Your task to perform on an android device: turn off javascript in the chrome app Image 0: 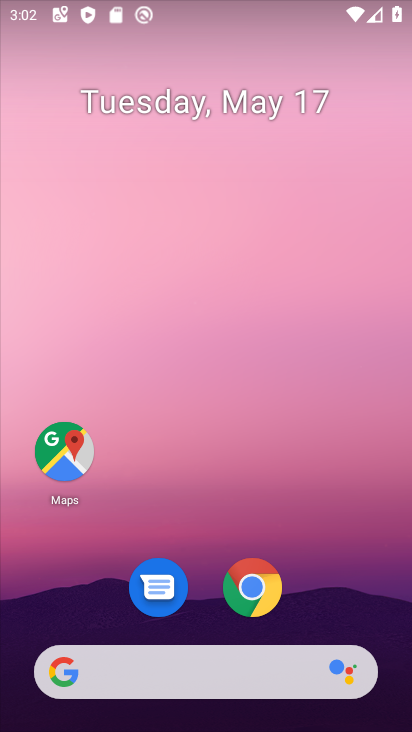
Step 0: drag from (287, 630) to (317, 8)
Your task to perform on an android device: turn off javascript in the chrome app Image 1: 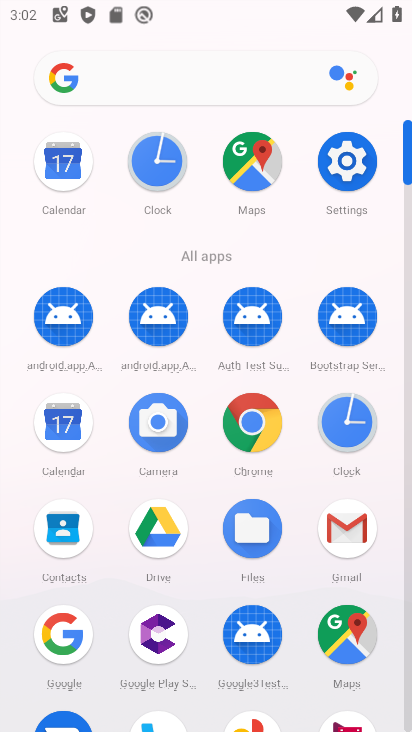
Step 1: click (250, 420)
Your task to perform on an android device: turn off javascript in the chrome app Image 2: 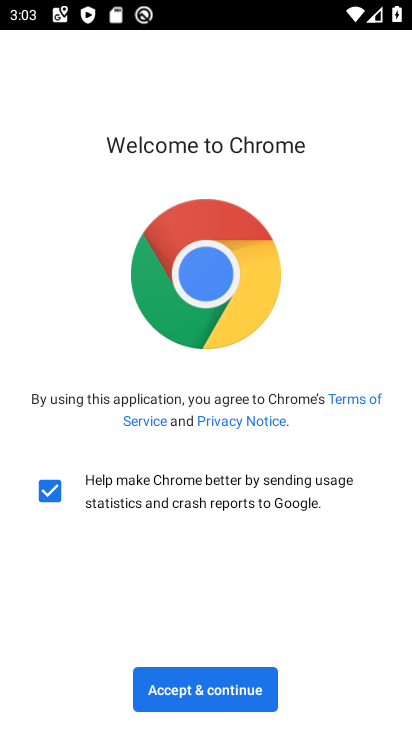
Step 2: click (141, 684)
Your task to perform on an android device: turn off javascript in the chrome app Image 3: 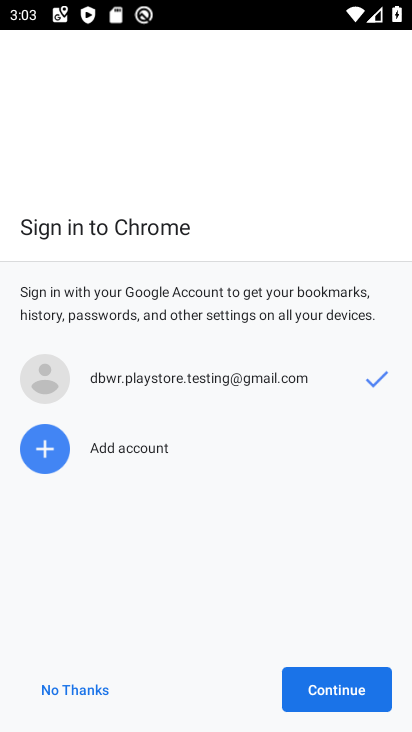
Step 3: click (67, 689)
Your task to perform on an android device: turn off javascript in the chrome app Image 4: 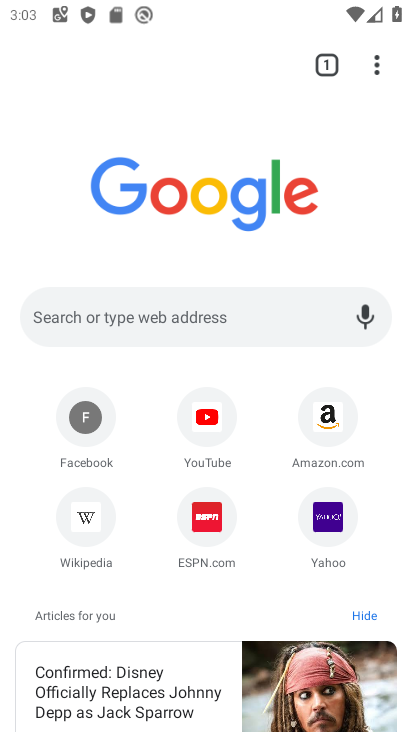
Step 4: click (373, 63)
Your task to perform on an android device: turn off javascript in the chrome app Image 5: 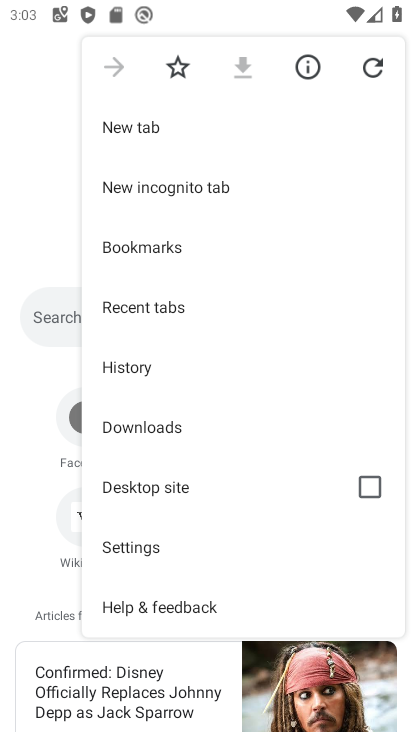
Step 5: click (175, 541)
Your task to perform on an android device: turn off javascript in the chrome app Image 6: 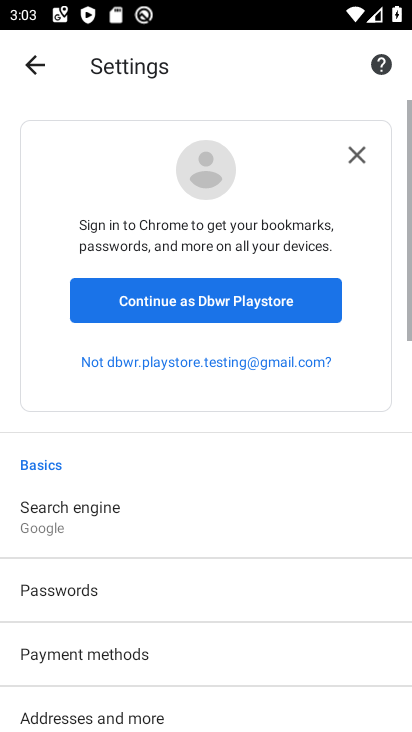
Step 6: drag from (174, 604) to (200, 73)
Your task to perform on an android device: turn off javascript in the chrome app Image 7: 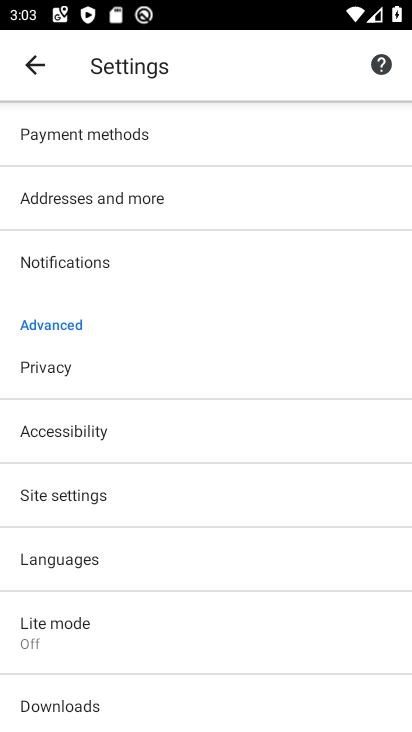
Step 7: click (94, 501)
Your task to perform on an android device: turn off javascript in the chrome app Image 8: 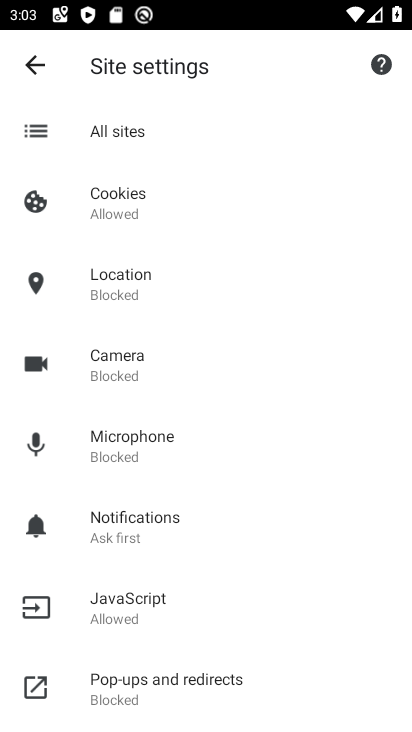
Step 8: click (173, 616)
Your task to perform on an android device: turn off javascript in the chrome app Image 9: 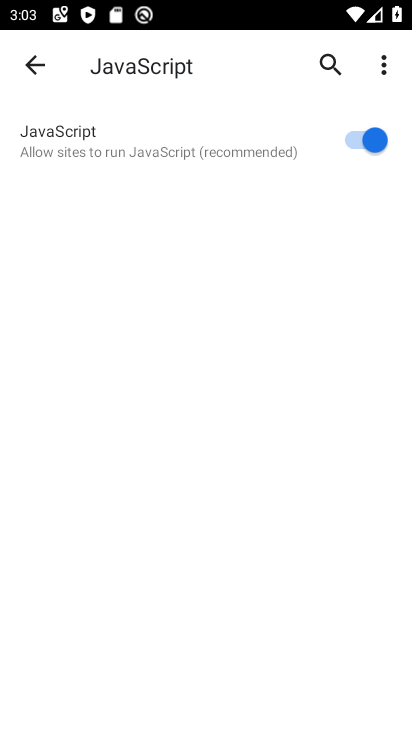
Step 9: click (360, 131)
Your task to perform on an android device: turn off javascript in the chrome app Image 10: 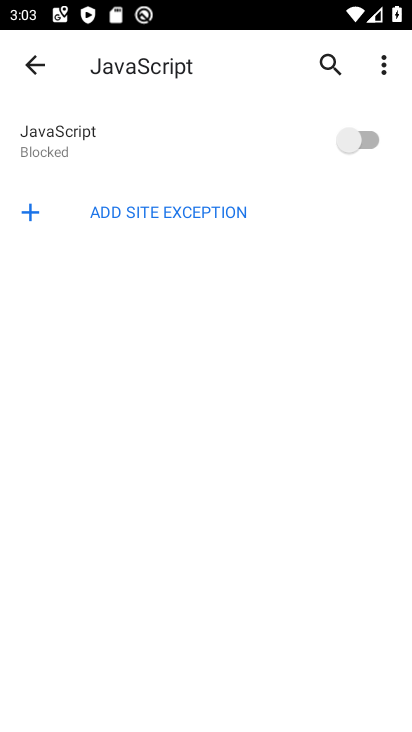
Step 10: task complete